Your task to perform on an android device: clear history in the chrome app Image 0: 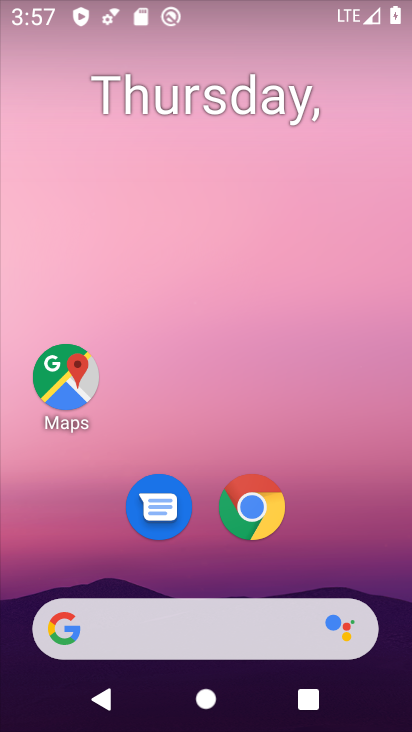
Step 0: click (252, 514)
Your task to perform on an android device: clear history in the chrome app Image 1: 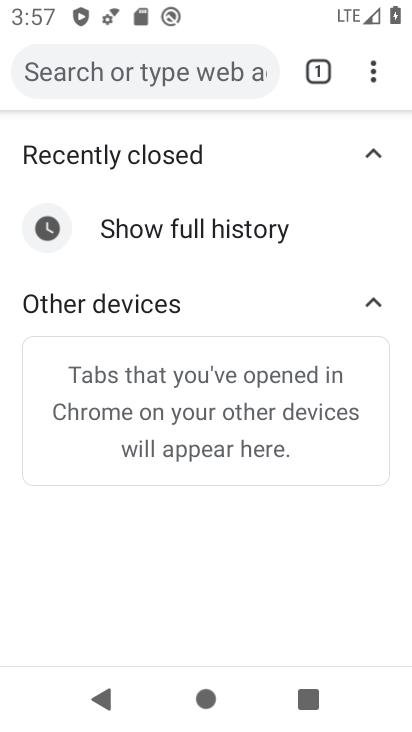
Step 1: drag from (376, 75) to (76, 323)
Your task to perform on an android device: clear history in the chrome app Image 2: 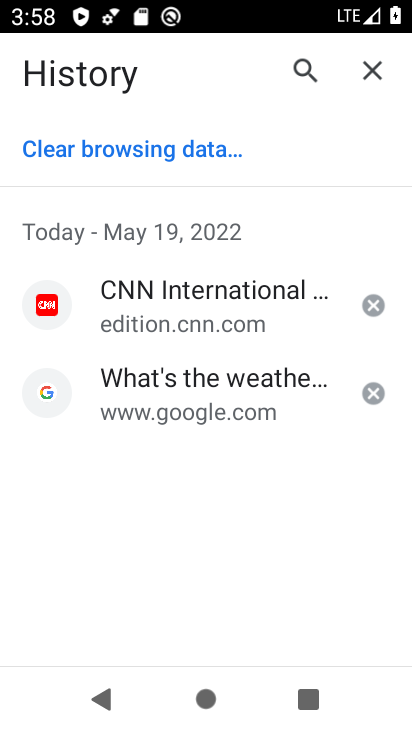
Step 2: click (370, 301)
Your task to perform on an android device: clear history in the chrome app Image 3: 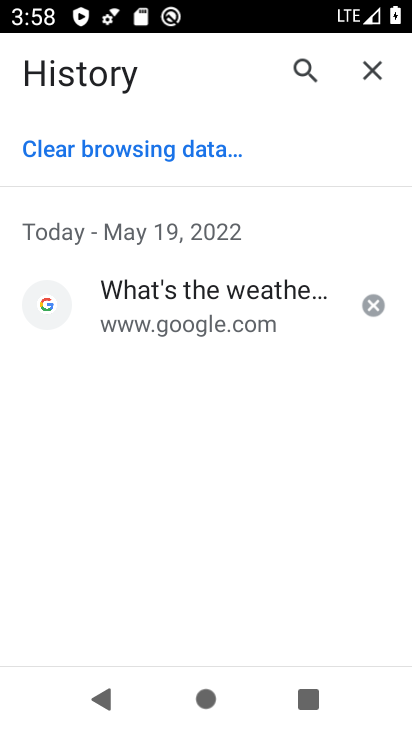
Step 3: click (370, 301)
Your task to perform on an android device: clear history in the chrome app Image 4: 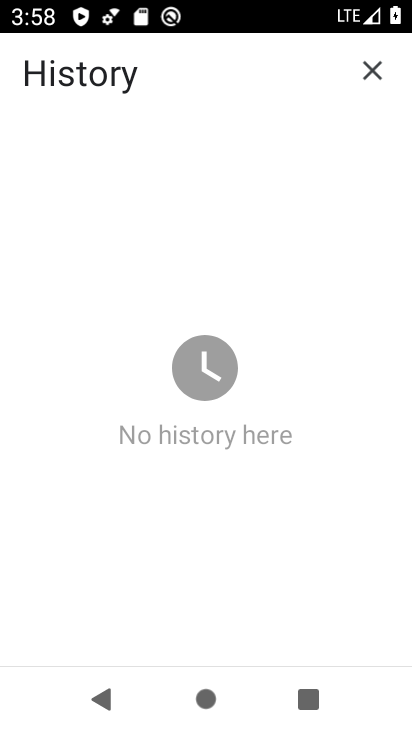
Step 4: task complete